Your task to perform on an android device: Do I have any events tomorrow? Image 0: 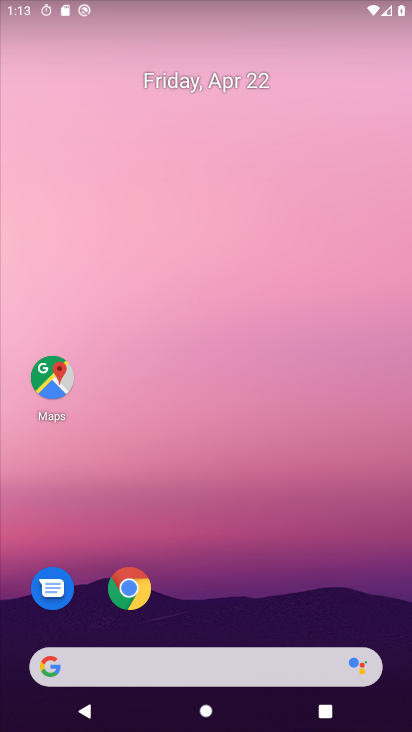
Step 0: drag from (380, 571) to (311, 148)
Your task to perform on an android device: Do I have any events tomorrow? Image 1: 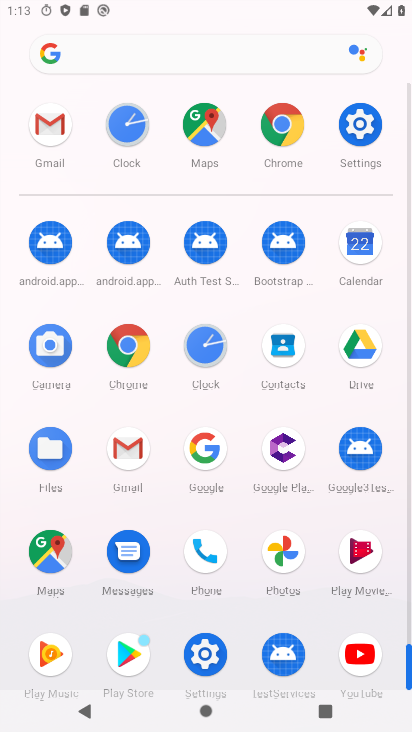
Step 1: click (365, 251)
Your task to perform on an android device: Do I have any events tomorrow? Image 2: 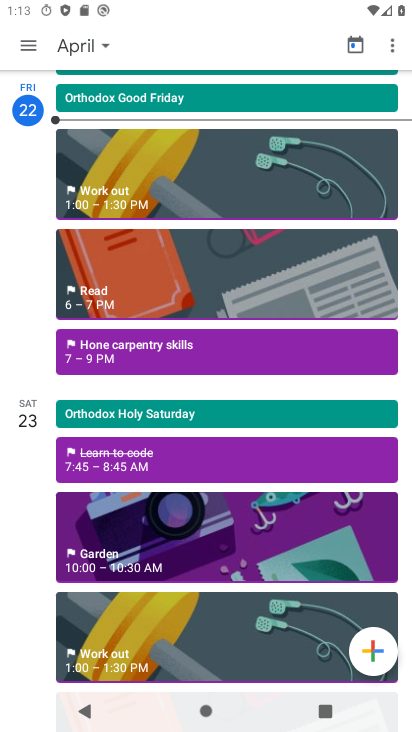
Step 2: task complete